Your task to perform on an android device: open wifi settings Image 0: 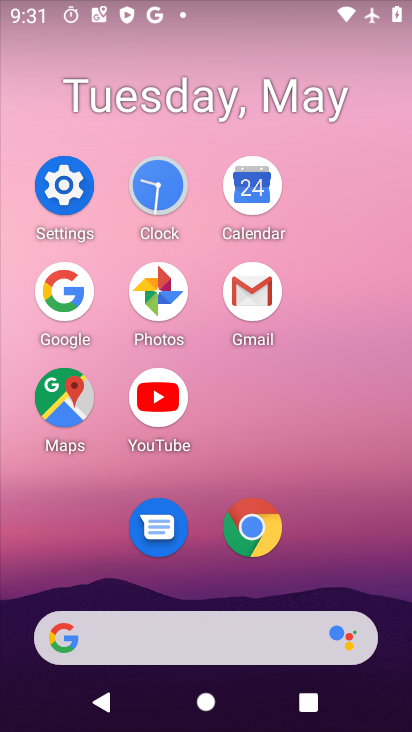
Step 0: click (69, 189)
Your task to perform on an android device: open wifi settings Image 1: 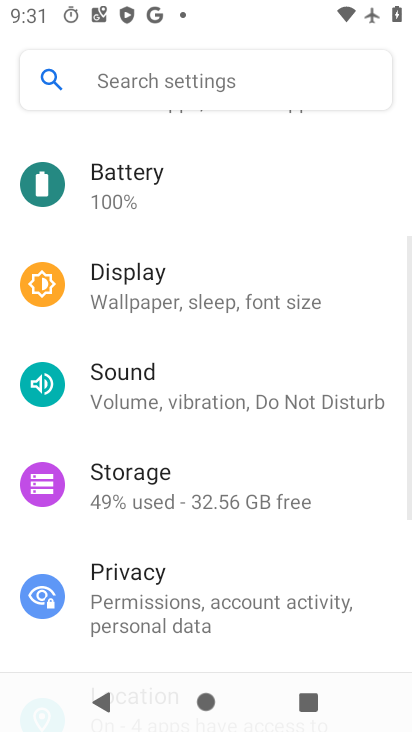
Step 1: drag from (196, 279) to (218, 584)
Your task to perform on an android device: open wifi settings Image 2: 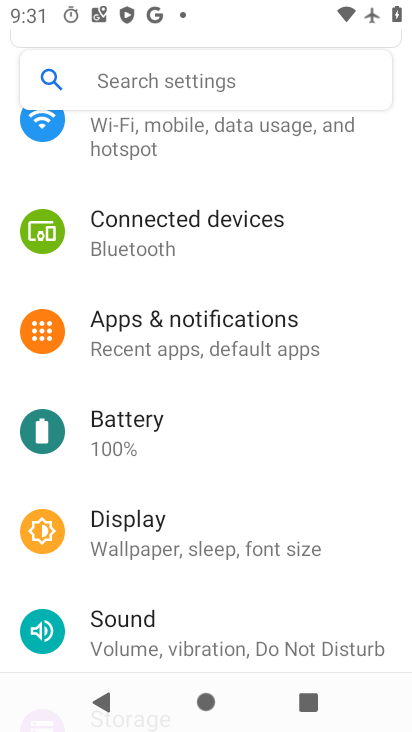
Step 2: click (284, 152)
Your task to perform on an android device: open wifi settings Image 3: 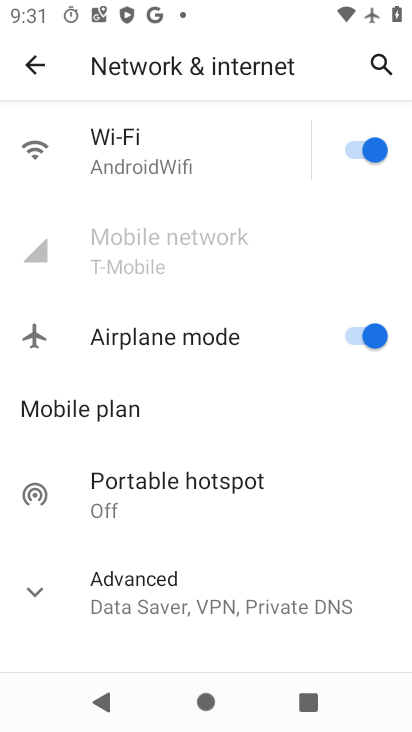
Step 3: click (284, 152)
Your task to perform on an android device: open wifi settings Image 4: 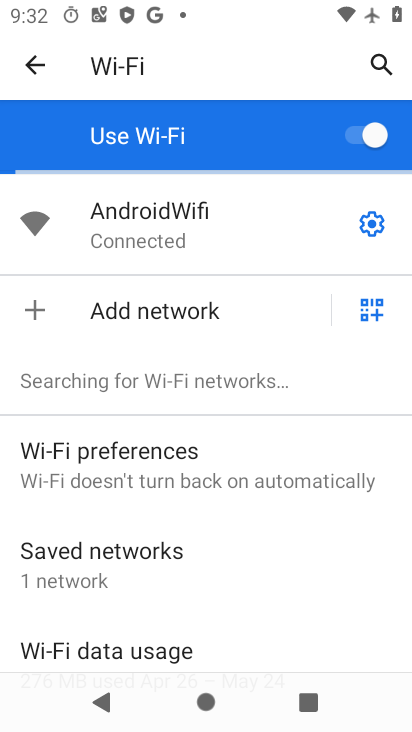
Step 4: click (369, 224)
Your task to perform on an android device: open wifi settings Image 5: 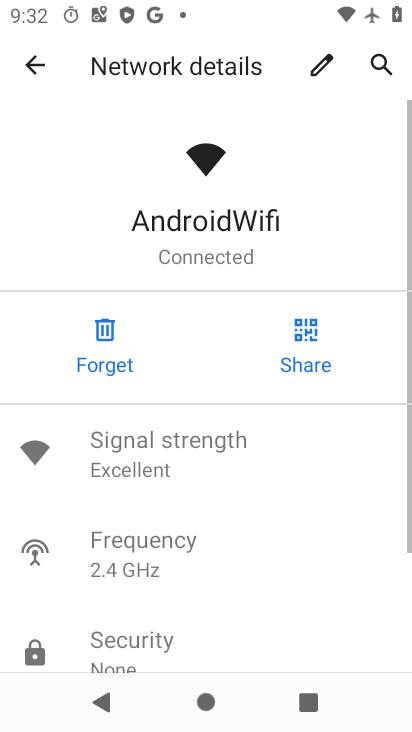
Step 5: task complete